Your task to perform on an android device: Is it going to rain today? Image 0: 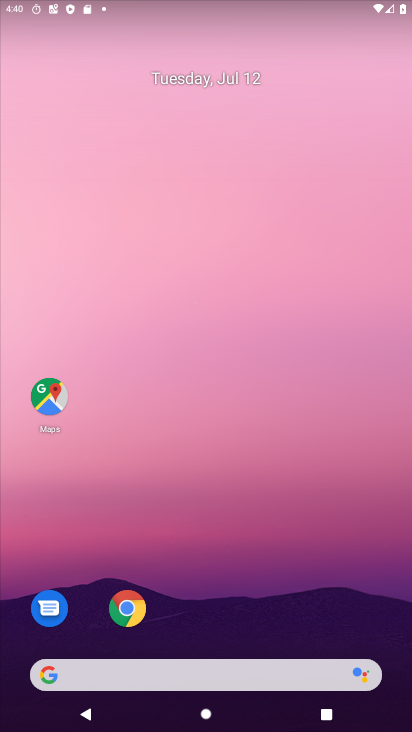
Step 0: drag from (241, 622) to (204, 88)
Your task to perform on an android device: Is it going to rain today? Image 1: 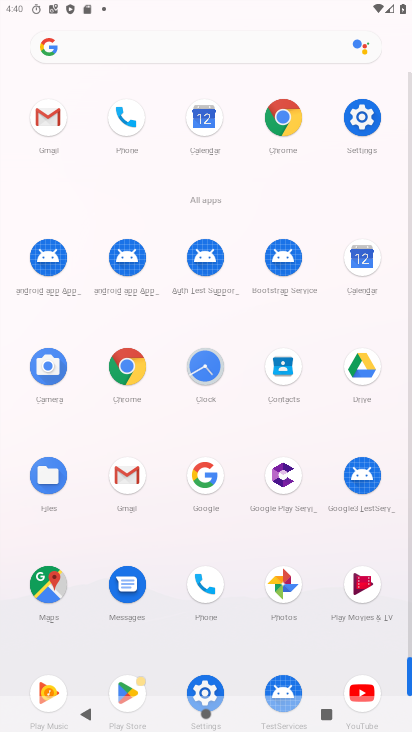
Step 1: click (291, 120)
Your task to perform on an android device: Is it going to rain today? Image 2: 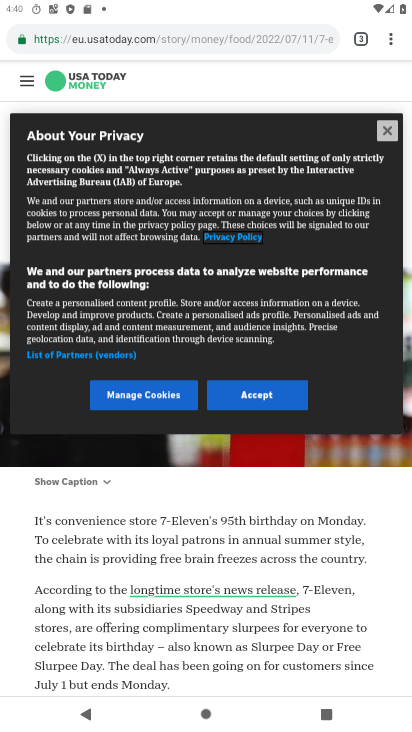
Step 2: click (239, 42)
Your task to perform on an android device: Is it going to rain today? Image 3: 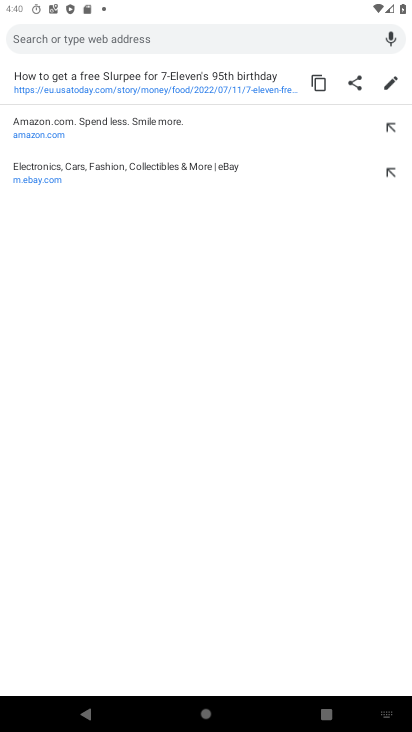
Step 3: type "Is it going to rain today?"
Your task to perform on an android device: Is it going to rain today? Image 4: 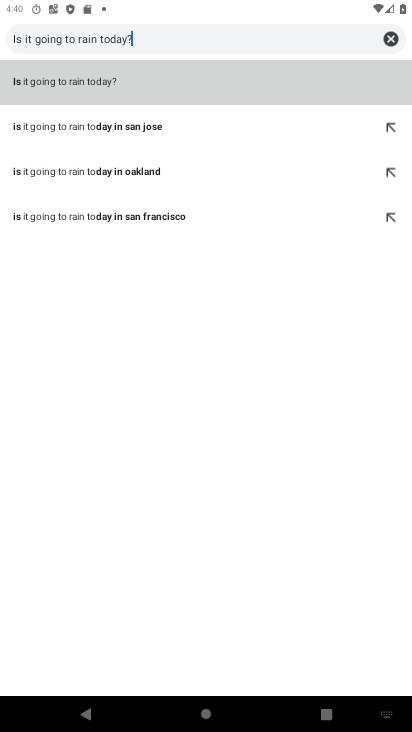
Step 4: click (92, 75)
Your task to perform on an android device: Is it going to rain today? Image 5: 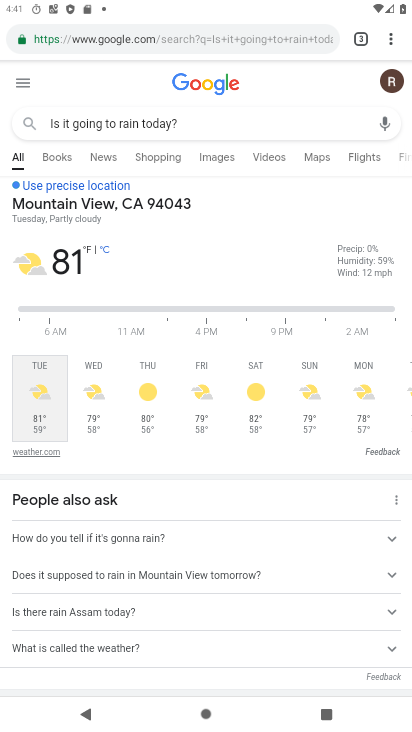
Step 5: task complete